Your task to perform on an android device: turn off smart reply in the gmail app Image 0: 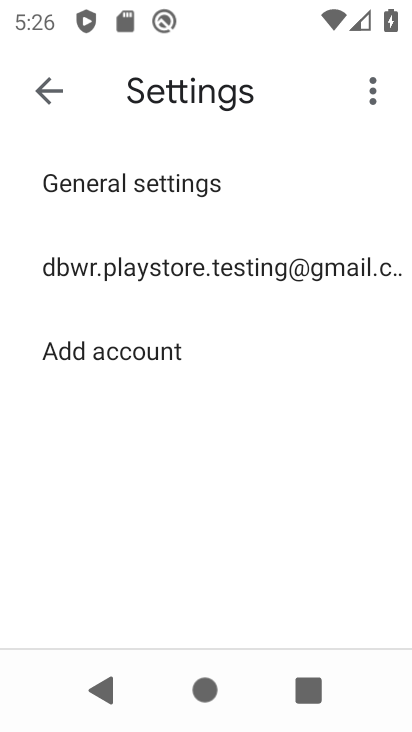
Step 0: click (124, 256)
Your task to perform on an android device: turn off smart reply in the gmail app Image 1: 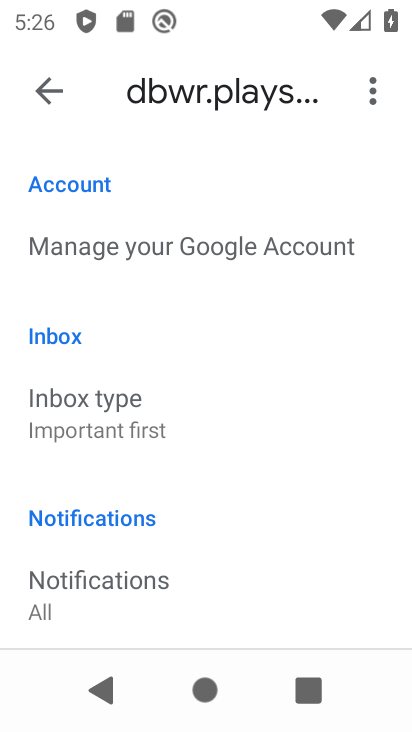
Step 1: drag from (218, 478) to (154, 184)
Your task to perform on an android device: turn off smart reply in the gmail app Image 2: 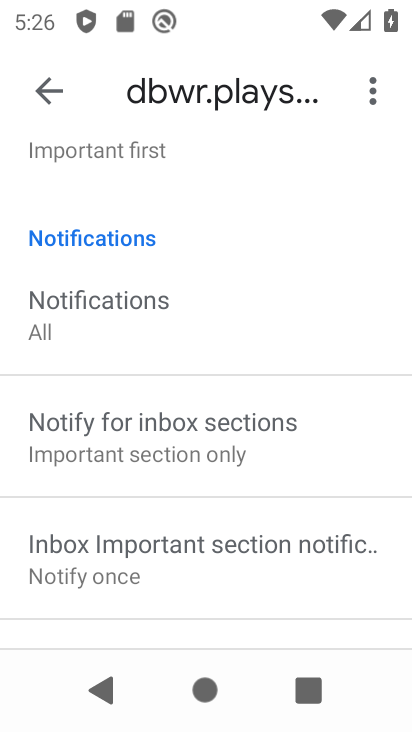
Step 2: drag from (205, 499) to (200, 176)
Your task to perform on an android device: turn off smart reply in the gmail app Image 3: 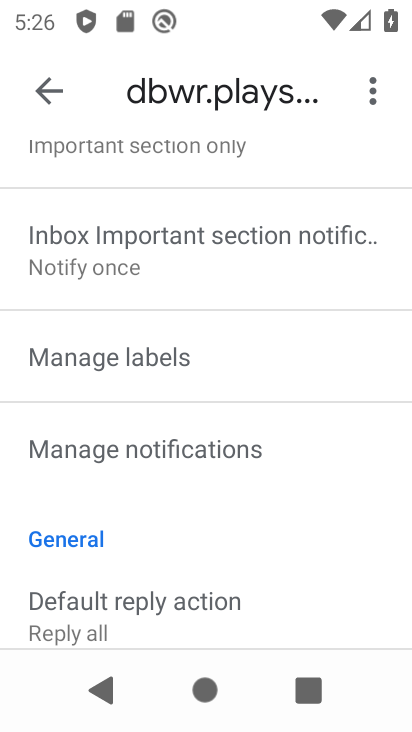
Step 3: drag from (210, 531) to (201, 195)
Your task to perform on an android device: turn off smart reply in the gmail app Image 4: 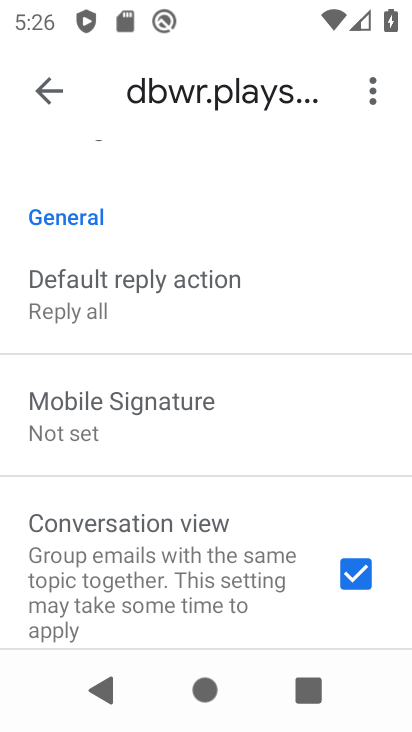
Step 4: drag from (231, 490) to (195, 133)
Your task to perform on an android device: turn off smart reply in the gmail app Image 5: 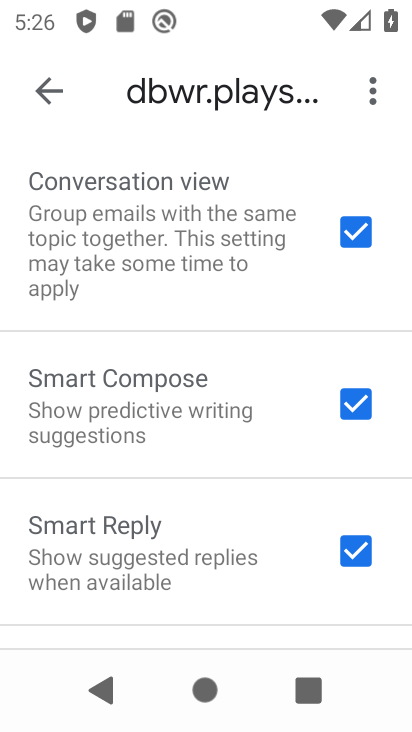
Step 5: drag from (231, 517) to (203, 278)
Your task to perform on an android device: turn off smart reply in the gmail app Image 6: 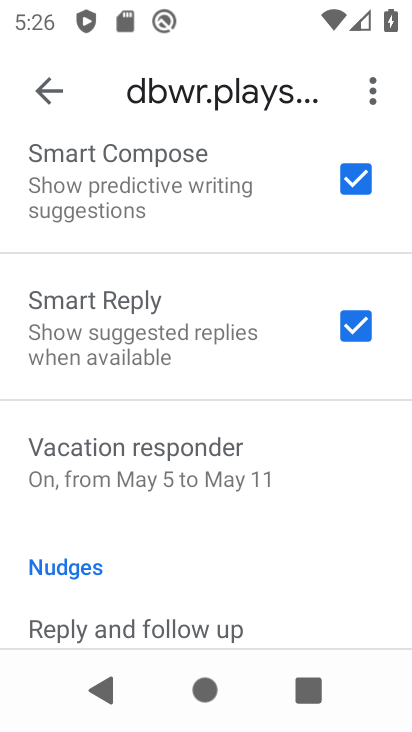
Step 6: click (364, 325)
Your task to perform on an android device: turn off smart reply in the gmail app Image 7: 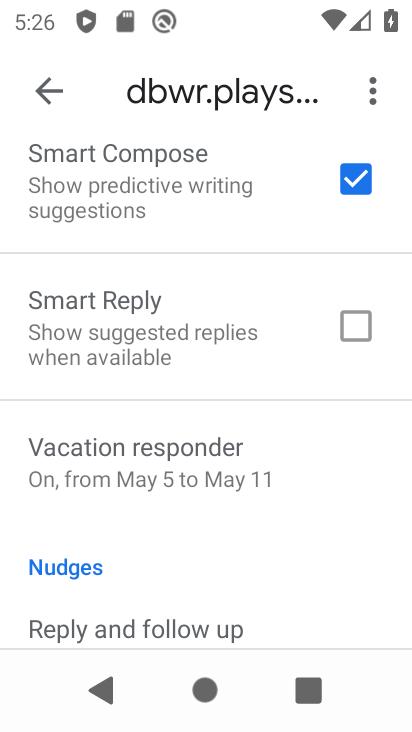
Step 7: task complete